Your task to perform on an android device: Search for logitech g933 on ebay, select the first entry, and add it to the cart. Image 0: 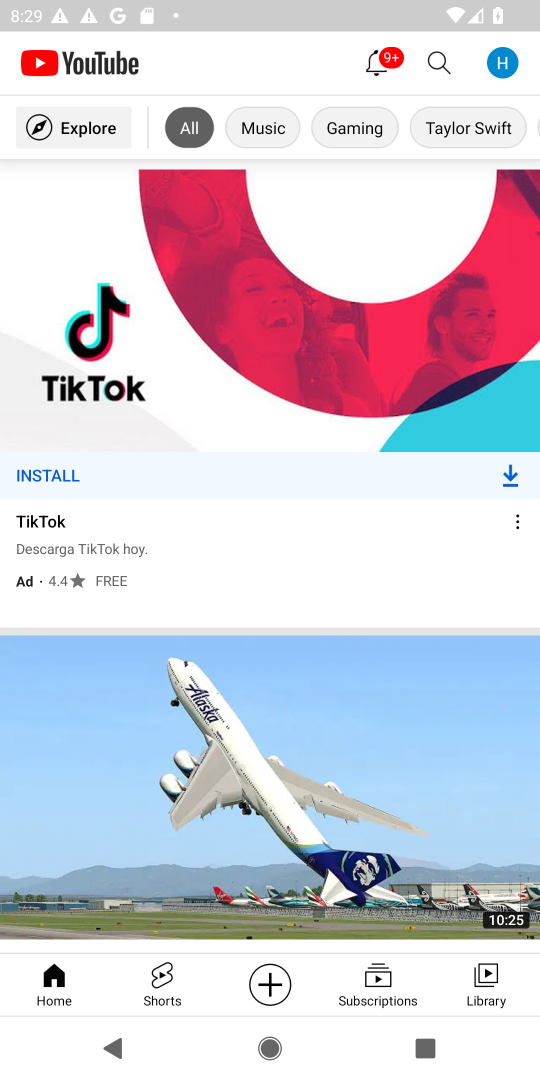
Step 0: press home button
Your task to perform on an android device: Search for logitech g933 on ebay, select the first entry, and add it to the cart. Image 1: 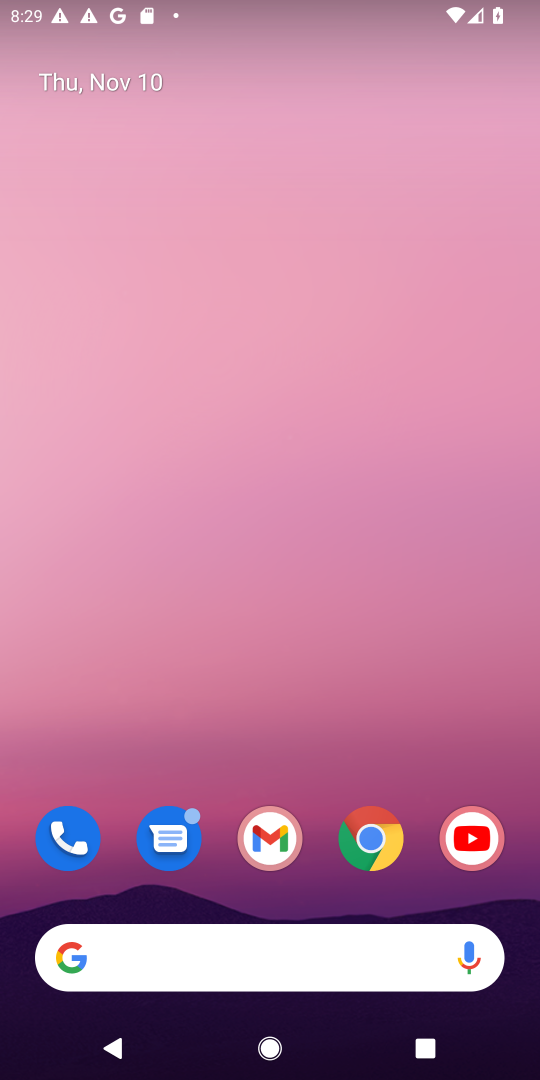
Step 1: drag from (321, 837) to (335, 172)
Your task to perform on an android device: Search for logitech g933 on ebay, select the first entry, and add it to the cart. Image 2: 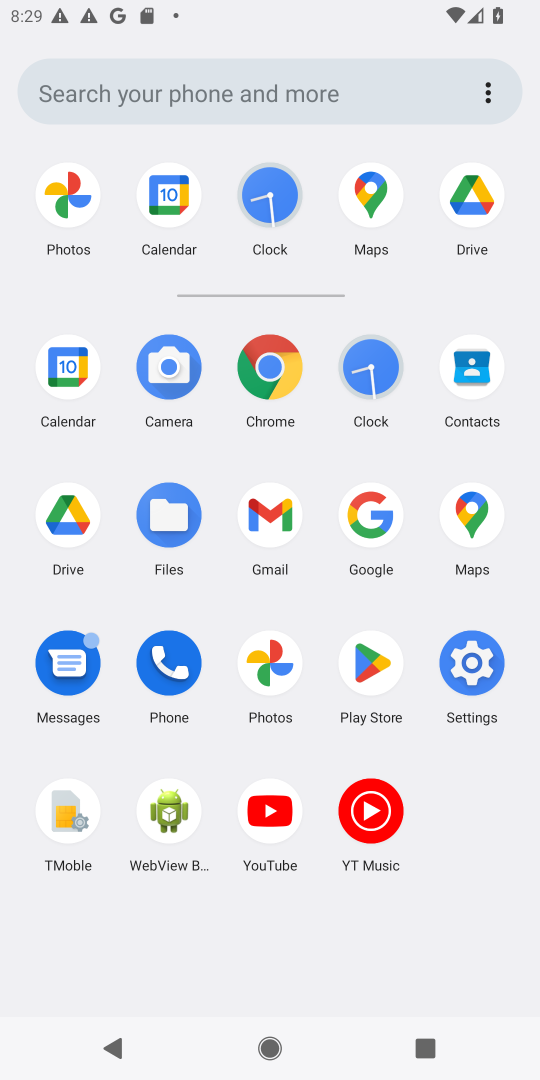
Step 2: click (264, 377)
Your task to perform on an android device: Search for logitech g933 on ebay, select the first entry, and add it to the cart. Image 3: 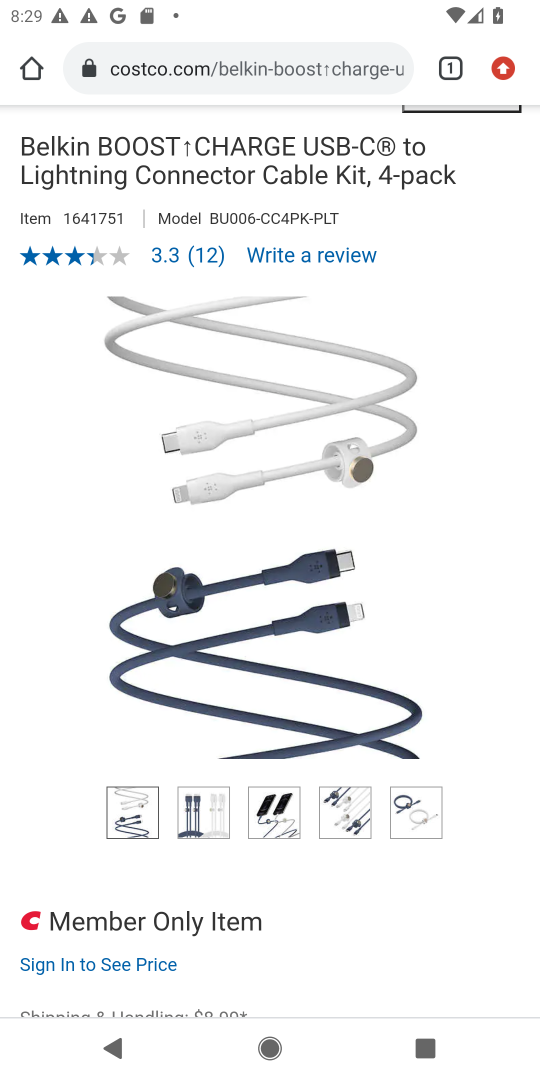
Step 3: click (237, 58)
Your task to perform on an android device: Search for logitech g933 on ebay, select the first entry, and add it to the cart. Image 4: 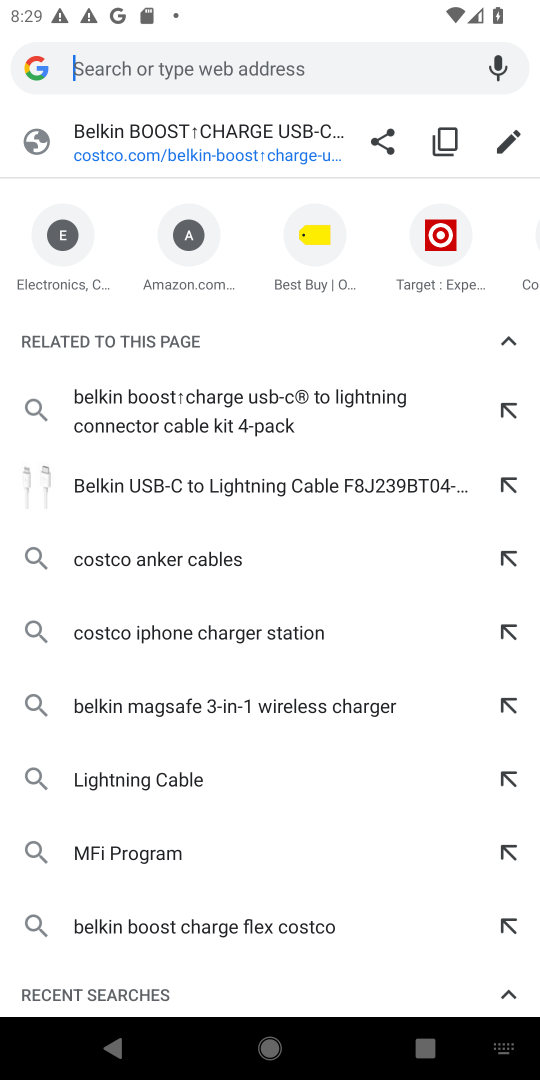
Step 4: type "ebay.com"
Your task to perform on an android device: Search for logitech g933 on ebay, select the first entry, and add it to the cart. Image 5: 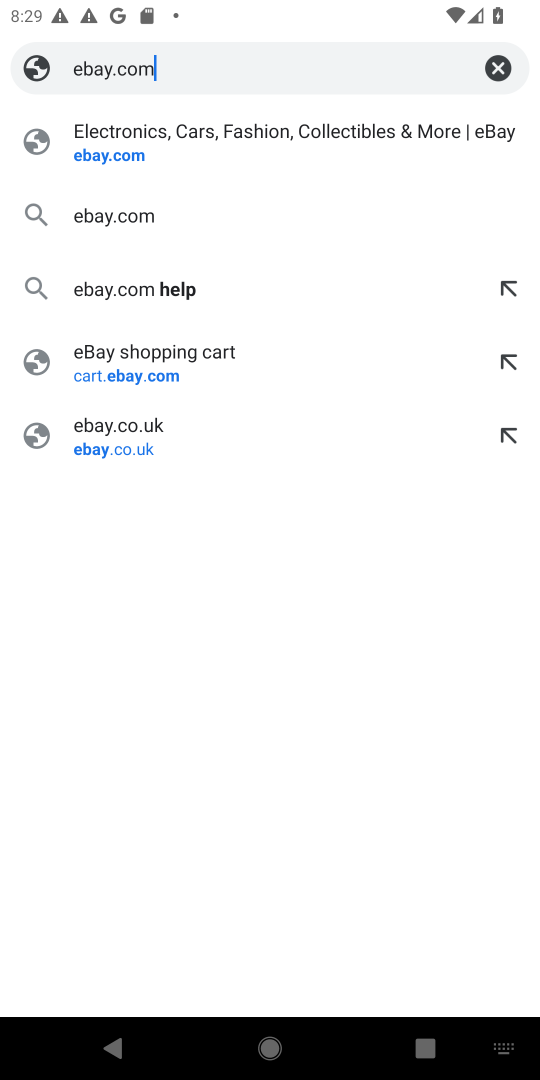
Step 5: press enter
Your task to perform on an android device: Search for logitech g933 on ebay, select the first entry, and add it to the cart. Image 6: 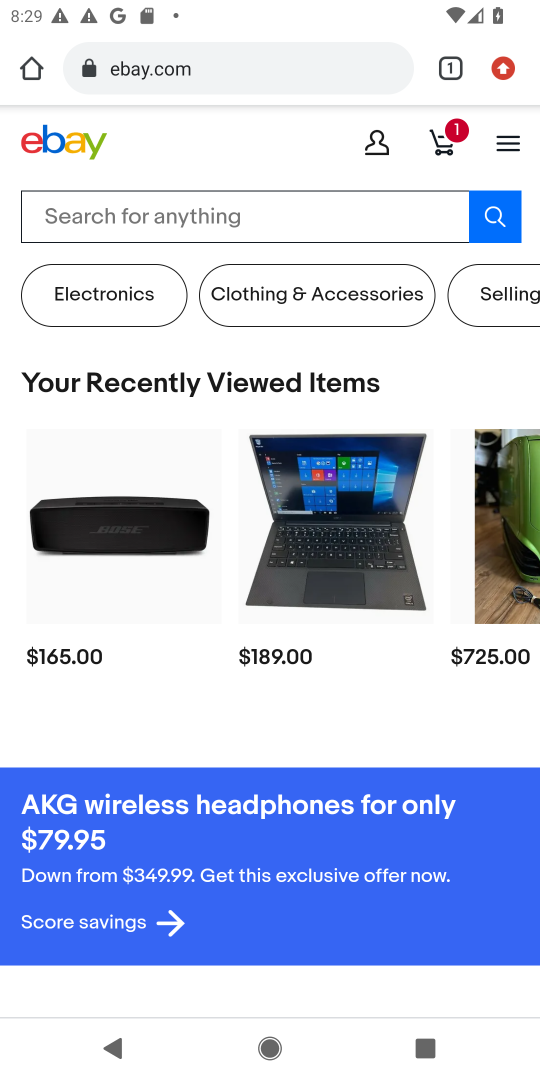
Step 6: click (309, 207)
Your task to perform on an android device: Search for logitech g933 on ebay, select the first entry, and add it to the cart. Image 7: 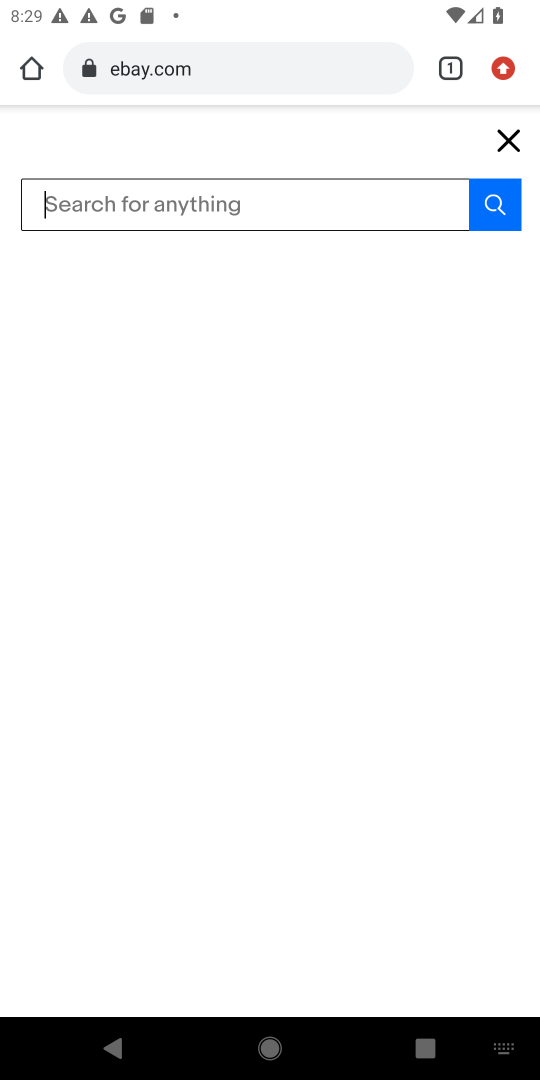
Step 7: type "logitech g933"
Your task to perform on an android device: Search for logitech g933 on ebay, select the first entry, and add it to the cart. Image 8: 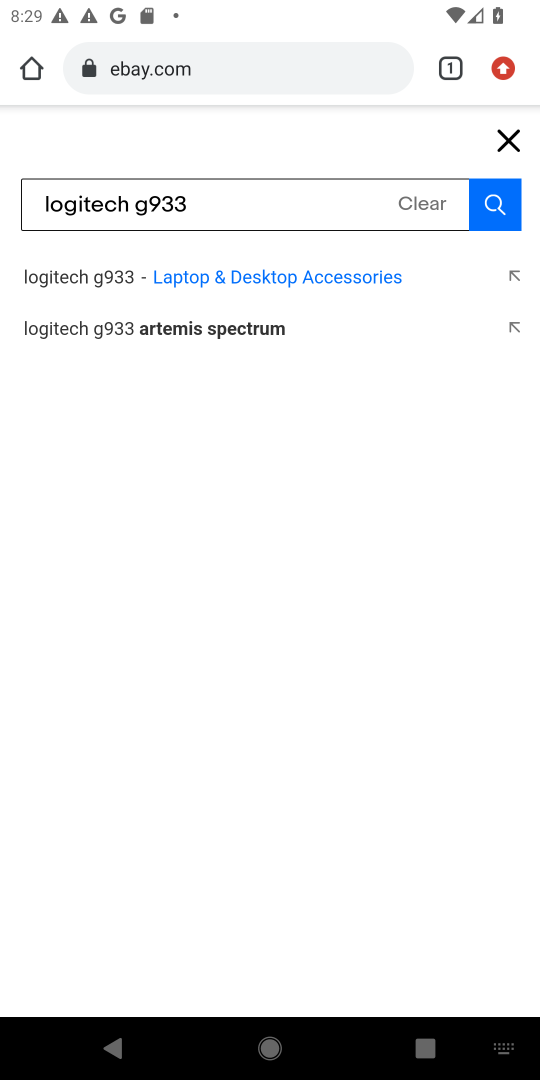
Step 8: press enter
Your task to perform on an android device: Search for logitech g933 on ebay, select the first entry, and add it to the cart. Image 9: 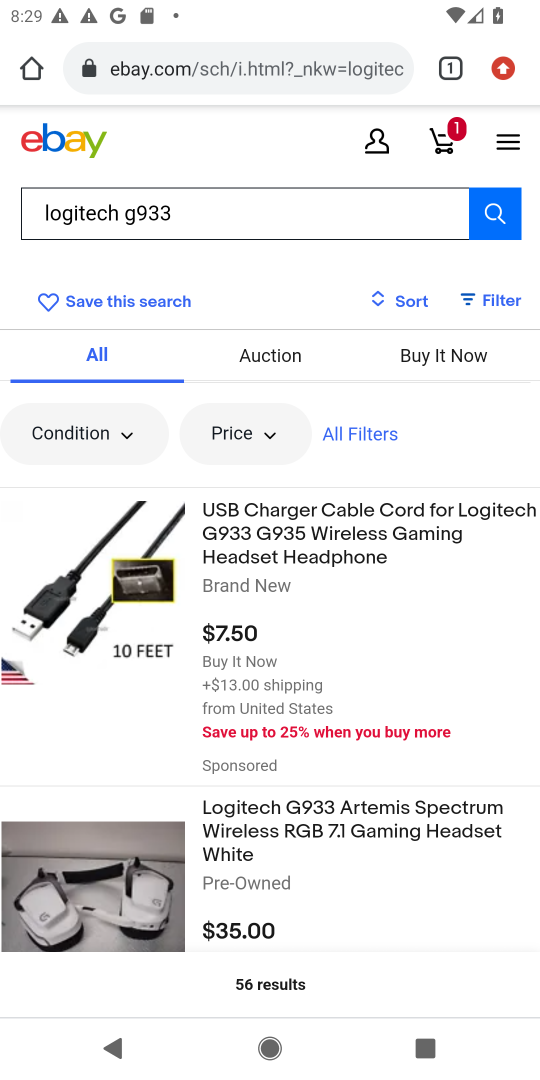
Step 9: drag from (412, 746) to (489, 526)
Your task to perform on an android device: Search for logitech g933 on ebay, select the first entry, and add it to the cart. Image 10: 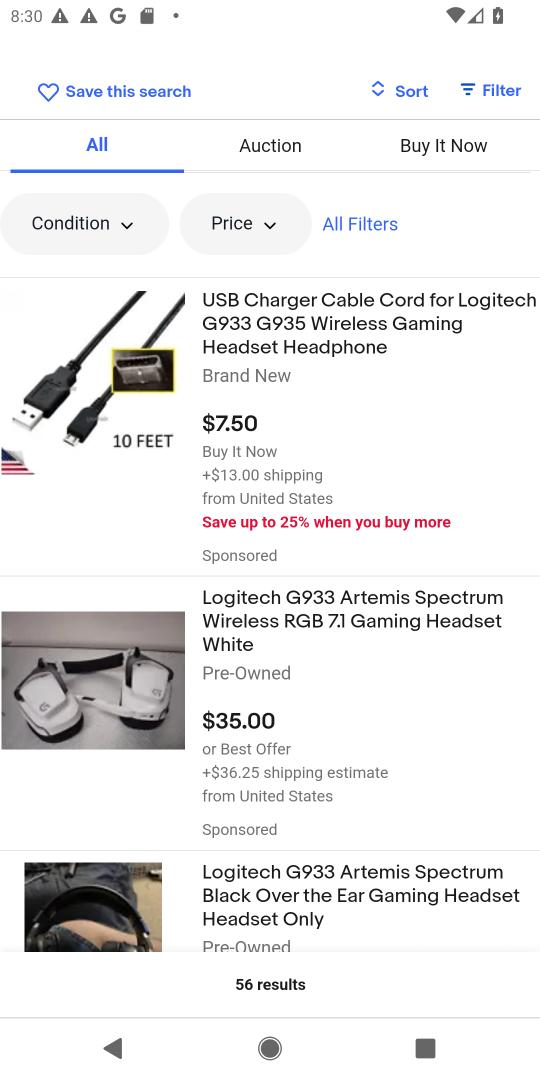
Step 10: click (129, 326)
Your task to perform on an android device: Search for logitech g933 on ebay, select the first entry, and add it to the cart. Image 11: 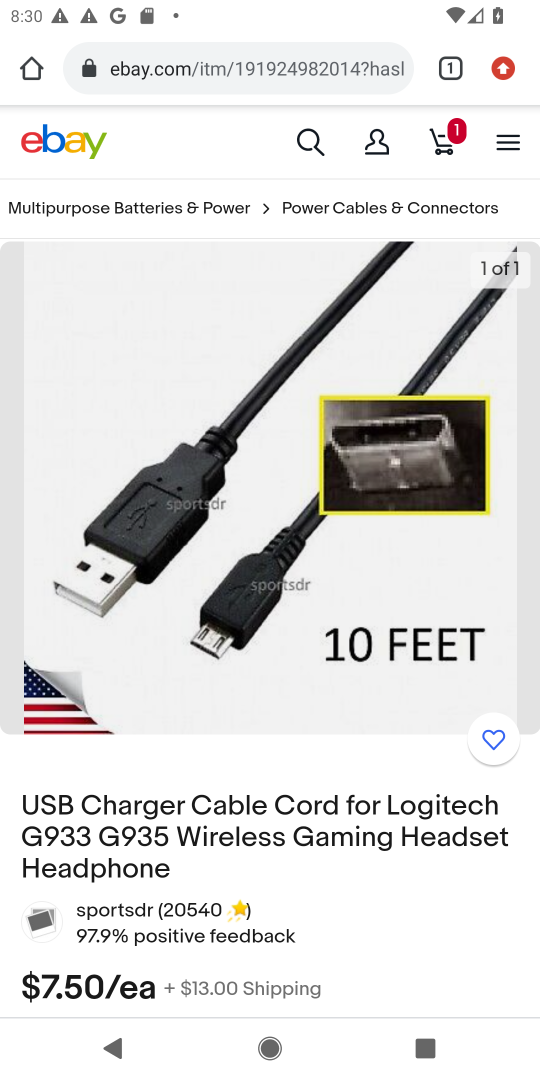
Step 11: drag from (404, 903) to (477, 122)
Your task to perform on an android device: Search for logitech g933 on ebay, select the first entry, and add it to the cart. Image 12: 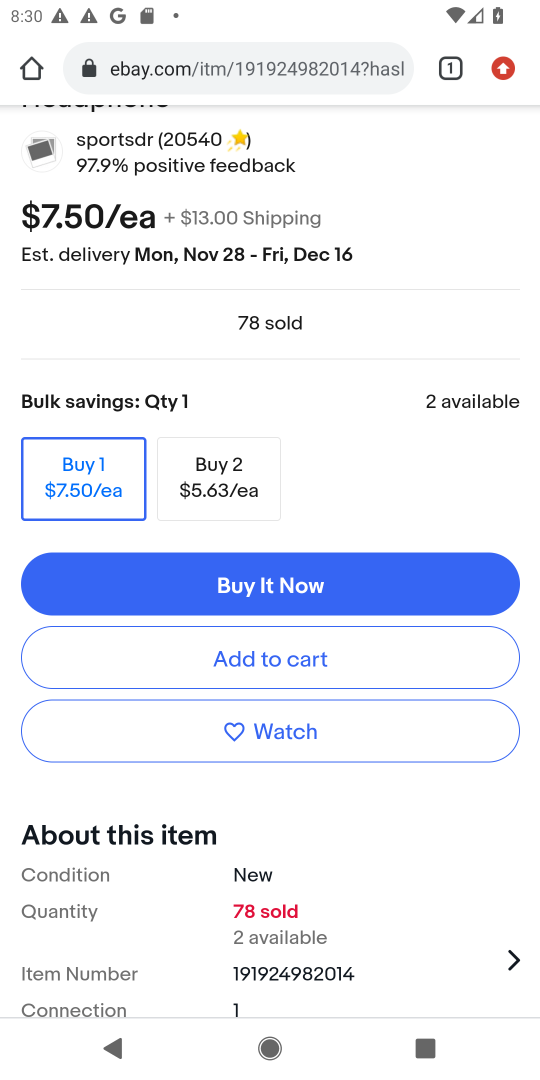
Step 12: click (307, 661)
Your task to perform on an android device: Search for logitech g933 on ebay, select the first entry, and add it to the cart. Image 13: 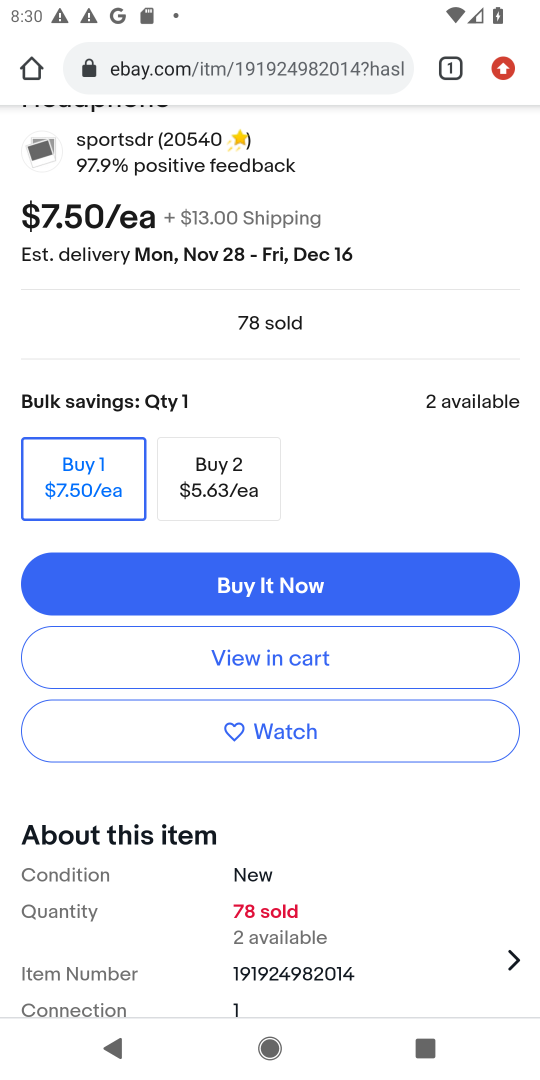
Step 13: task complete